Your task to perform on an android device: turn off translation in the chrome app Image 0: 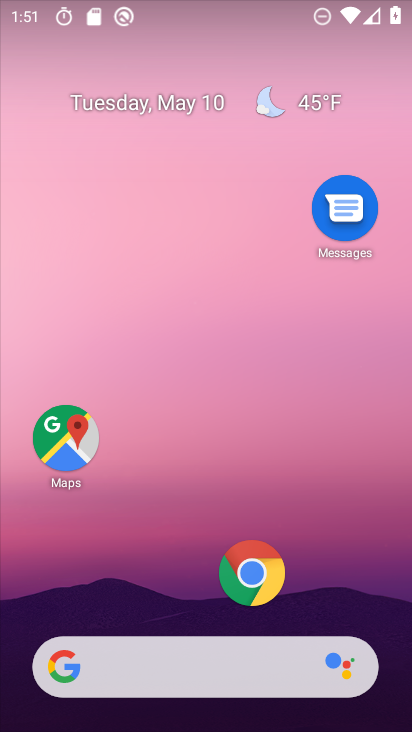
Step 0: drag from (184, 590) to (205, 197)
Your task to perform on an android device: turn off translation in the chrome app Image 1: 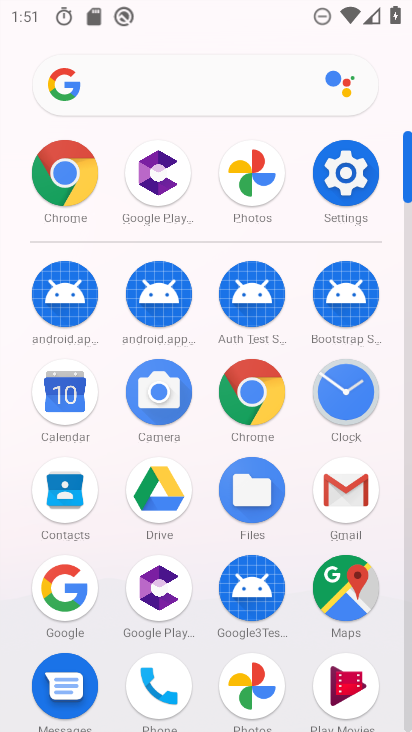
Step 1: click (244, 388)
Your task to perform on an android device: turn off translation in the chrome app Image 2: 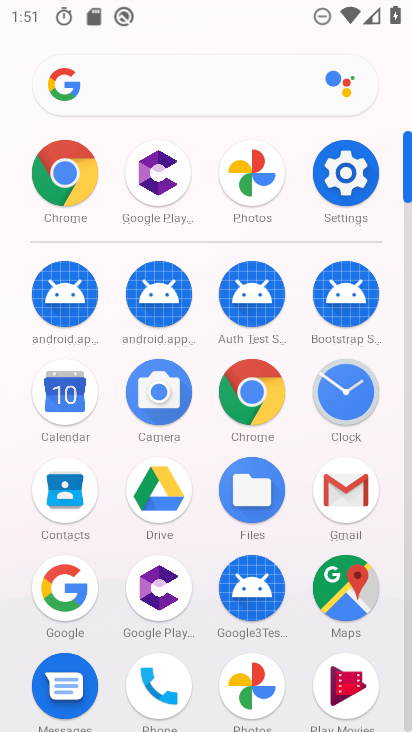
Step 2: click (248, 387)
Your task to perform on an android device: turn off translation in the chrome app Image 3: 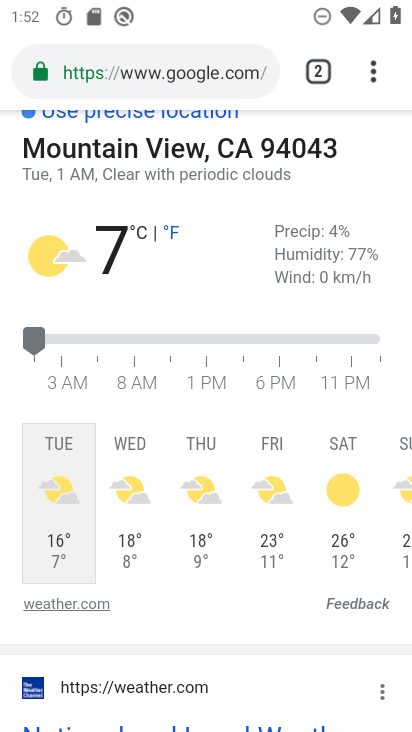
Step 3: drag from (373, 61) to (114, 566)
Your task to perform on an android device: turn off translation in the chrome app Image 4: 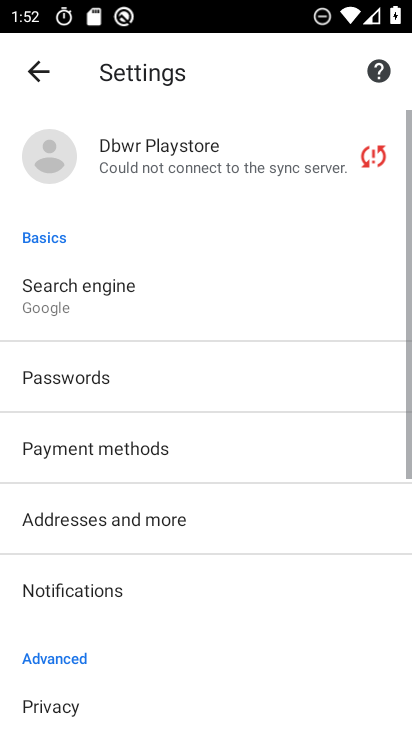
Step 4: drag from (159, 384) to (218, 29)
Your task to perform on an android device: turn off translation in the chrome app Image 5: 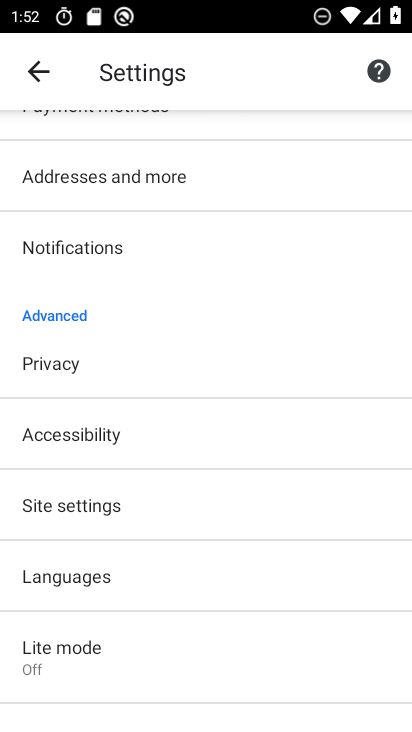
Step 5: click (102, 569)
Your task to perform on an android device: turn off translation in the chrome app Image 6: 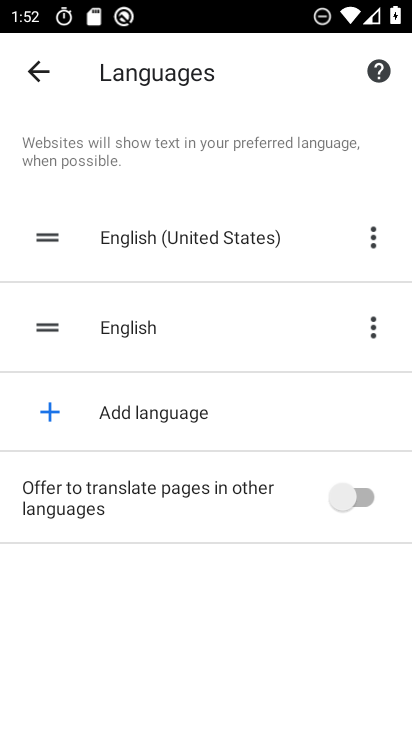
Step 6: task complete